Your task to perform on an android device: Turn on the flashlight Image 0: 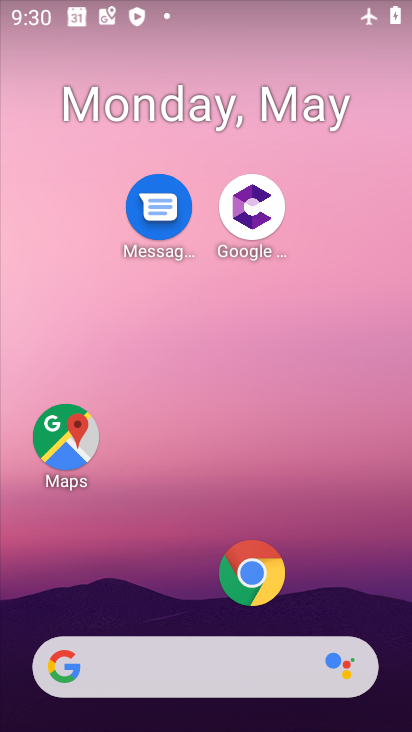
Step 0: drag from (325, 18) to (206, 425)
Your task to perform on an android device: Turn on the flashlight Image 1: 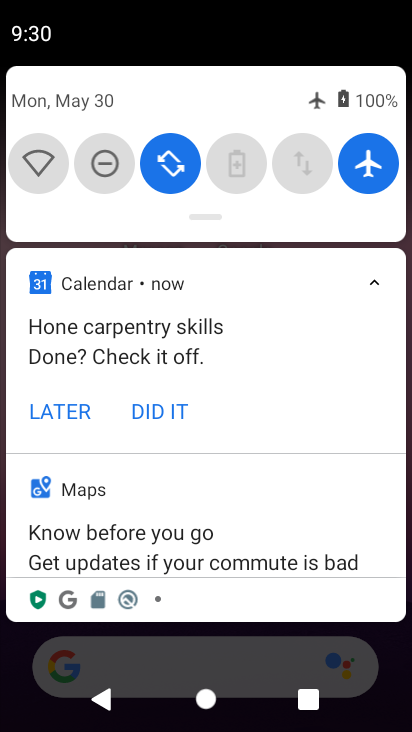
Step 1: task complete